Your task to perform on an android device: Go to Reddit.com Image 0: 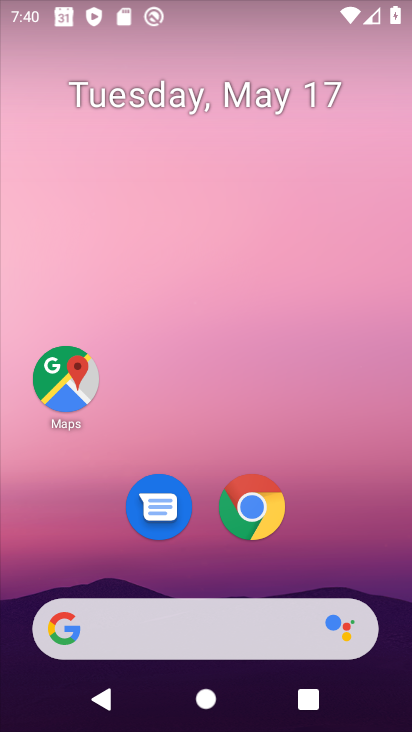
Step 0: click (268, 521)
Your task to perform on an android device: Go to Reddit.com Image 1: 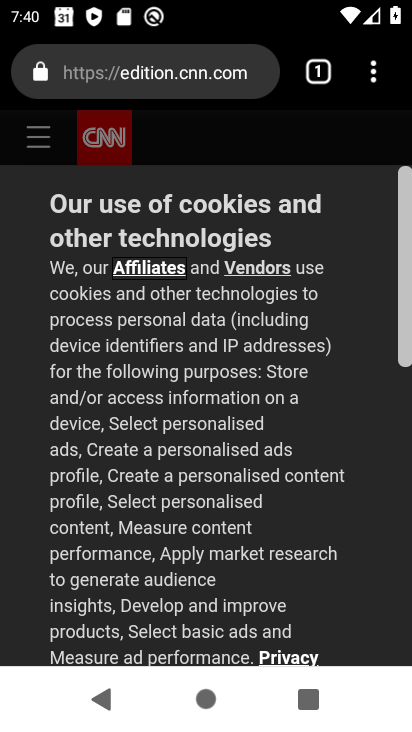
Step 1: click (149, 82)
Your task to perform on an android device: Go to Reddit.com Image 2: 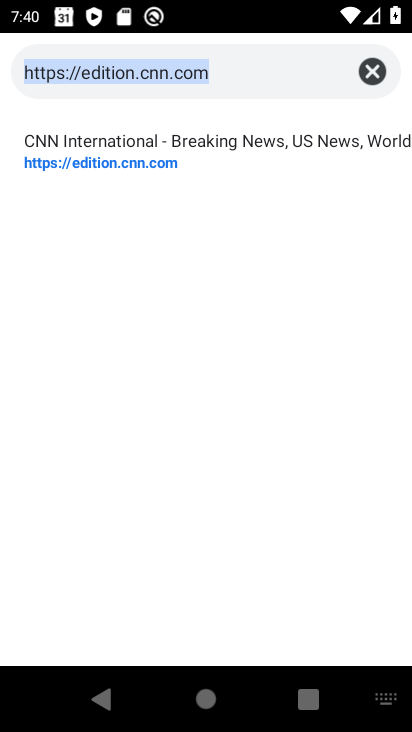
Step 2: click (368, 75)
Your task to perform on an android device: Go to Reddit.com Image 3: 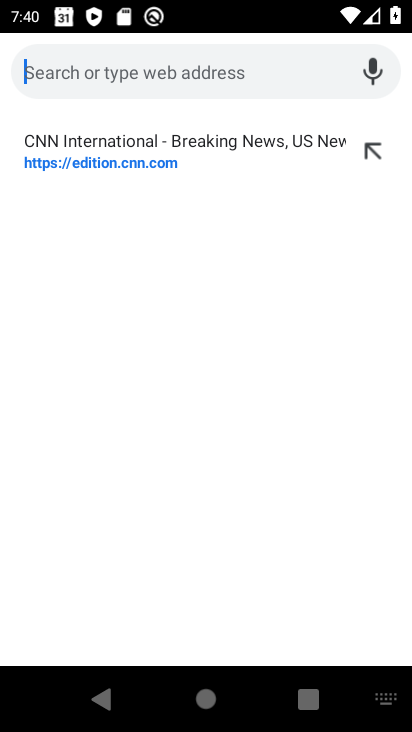
Step 3: click (88, 73)
Your task to perform on an android device: Go to Reddit.com Image 4: 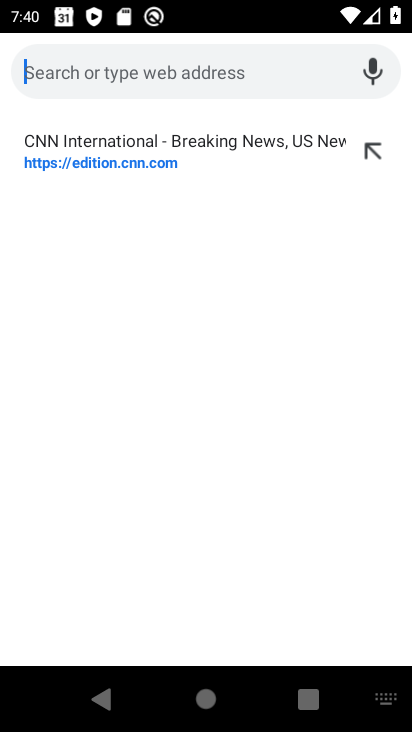
Step 4: type "reddit.com"
Your task to perform on an android device: Go to Reddit.com Image 5: 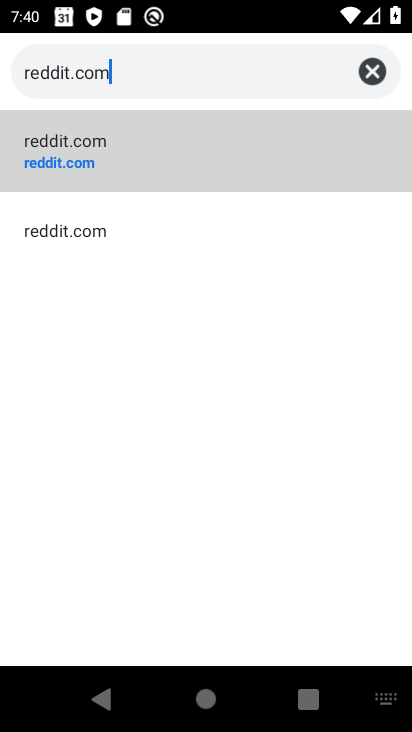
Step 5: click (67, 159)
Your task to perform on an android device: Go to Reddit.com Image 6: 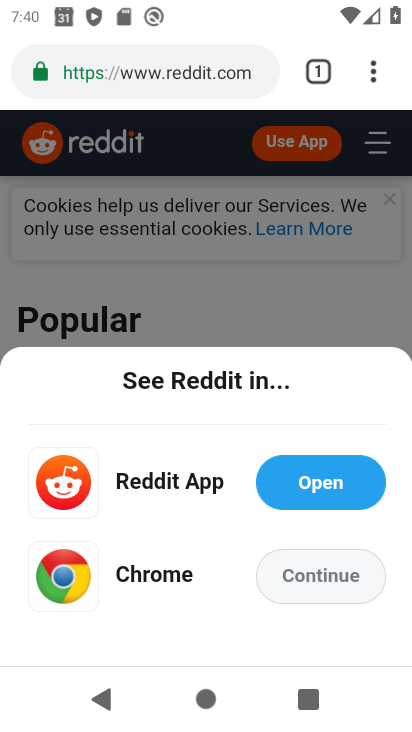
Step 6: task complete